Your task to perform on an android device: refresh tabs in the chrome app Image 0: 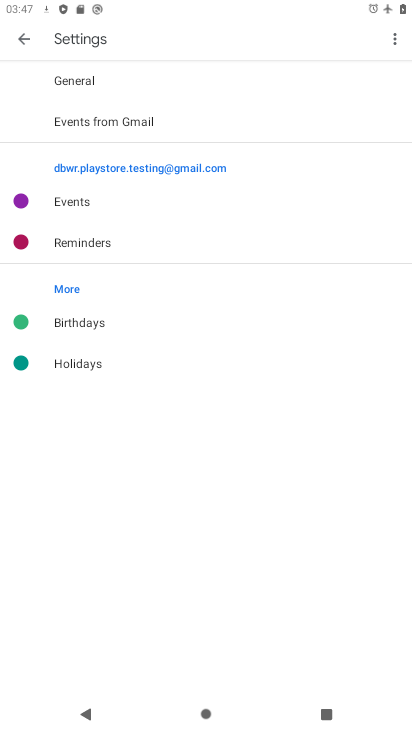
Step 0: press home button
Your task to perform on an android device: refresh tabs in the chrome app Image 1: 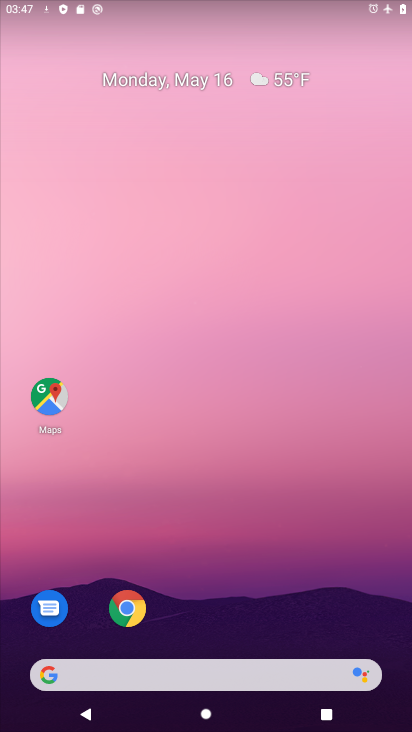
Step 1: click (120, 591)
Your task to perform on an android device: refresh tabs in the chrome app Image 2: 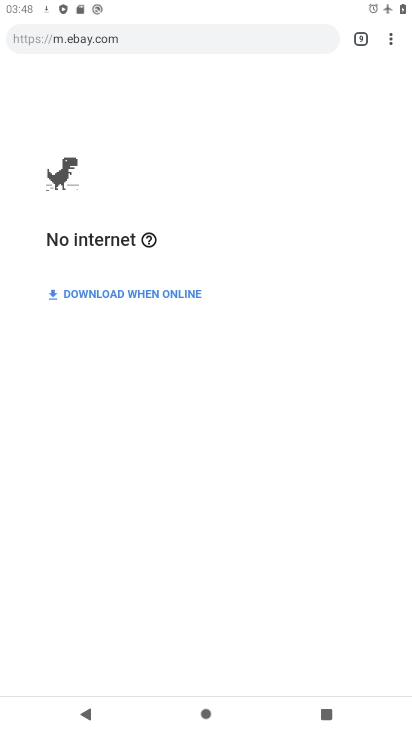
Step 2: click (390, 36)
Your task to perform on an android device: refresh tabs in the chrome app Image 3: 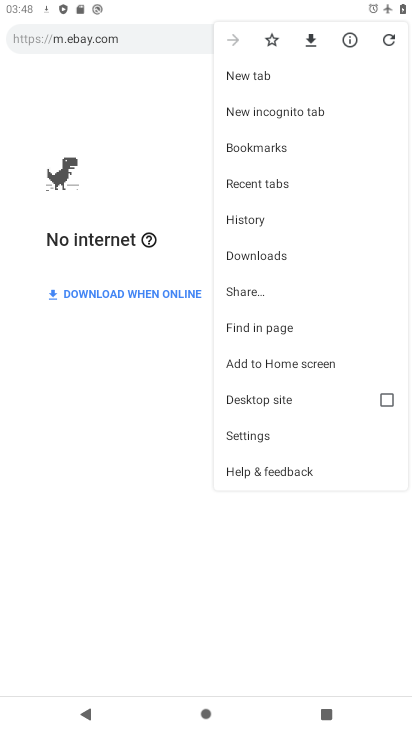
Step 3: click (386, 46)
Your task to perform on an android device: refresh tabs in the chrome app Image 4: 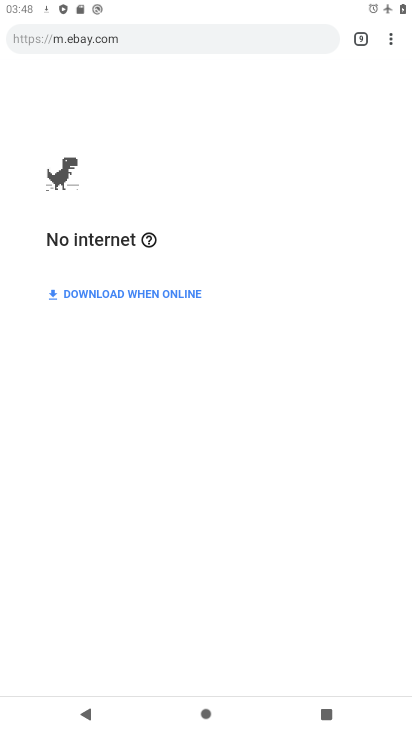
Step 4: task complete